Your task to perform on an android device: Open Chrome and go to settings Image 0: 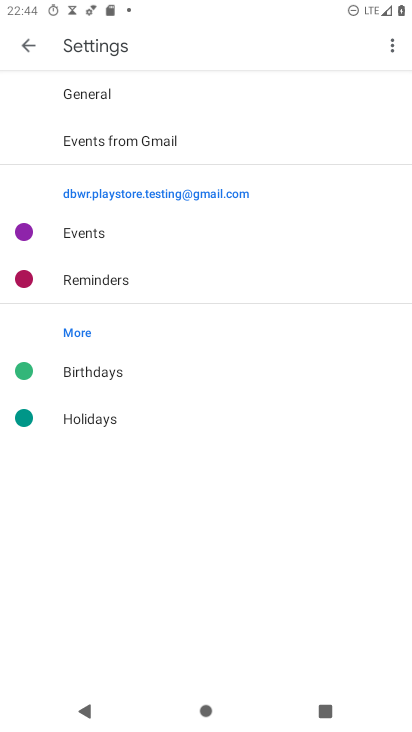
Step 0: press back button
Your task to perform on an android device: Open Chrome and go to settings Image 1: 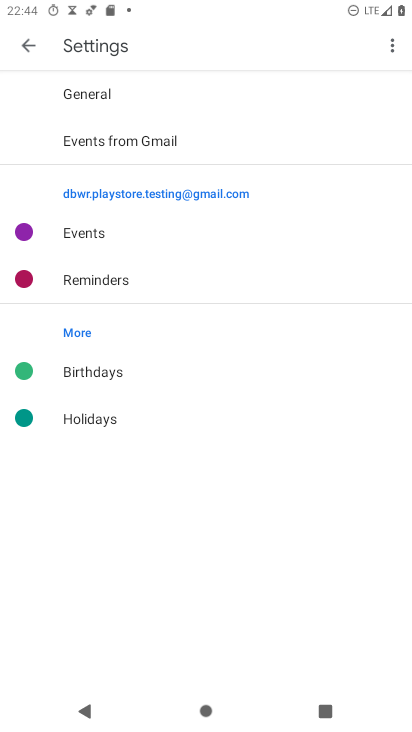
Step 1: press back button
Your task to perform on an android device: Open Chrome and go to settings Image 2: 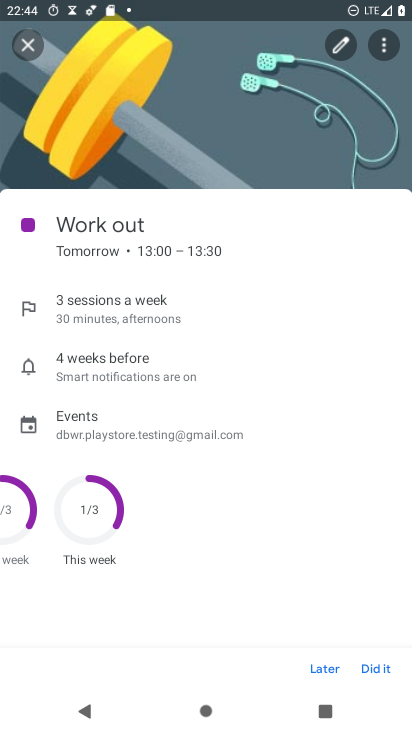
Step 2: press back button
Your task to perform on an android device: Open Chrome and go to settings Image 3: 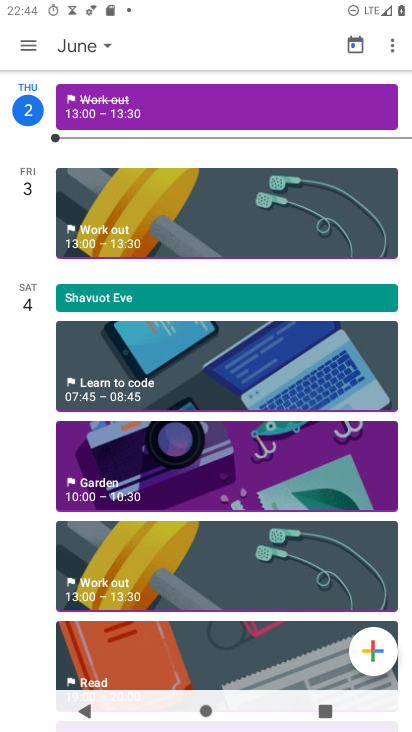
Step 3: press back button
Your task to perform on an android device: Open Chrome and go to settings Image 4: 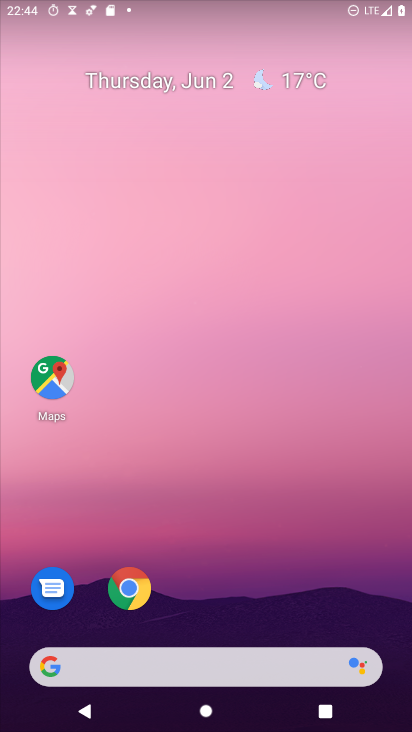
Step 4: click (117, 588)
Your task to perform on an android device: Open Chrome and go to settings Image 5: 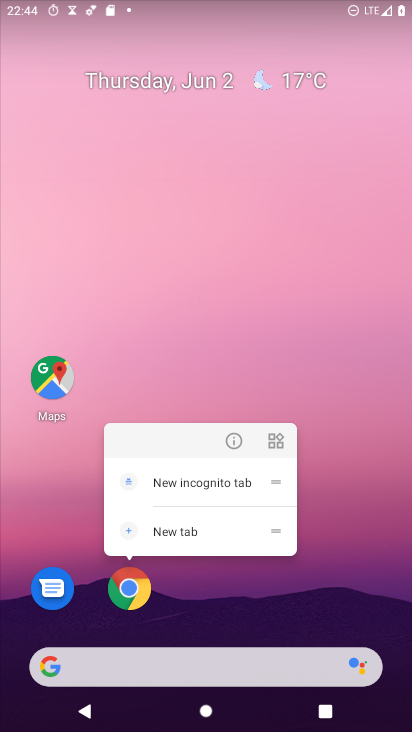
Step 5: click (123, 591)
Your task to perform on an android device: Open Chrome and go to settings Image 6: 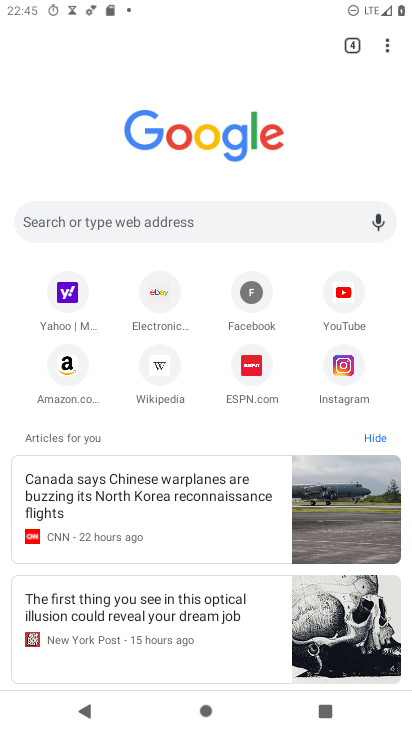
Step 6: task complete